Your task to perform on an android device: set default search engine in the chrome app Image 0: 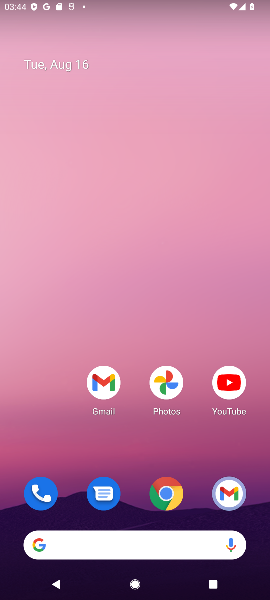
Step 0: press home button
Your task to perform on an android device: set default search engine in the chrome app Image 1: 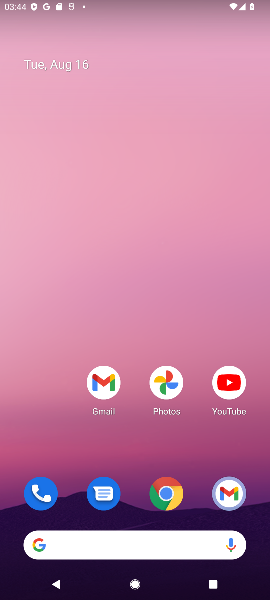
Step 1: drag from (67, 451) to (59, 140)
Your task to perform on an android device: set default search engine in the chrome app Image 2: 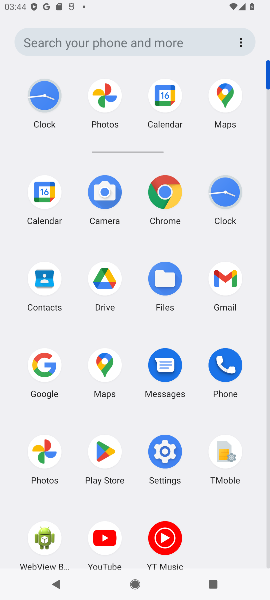
Step 2: click (166, 197)
Your task to perform on an android device: set default search engine in the chrome app Image 3: 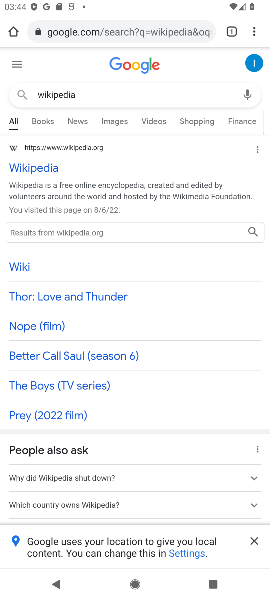
Step 3: click (255, 32)
Your task to perform on an android device: set default search engine in the chrome app Image 4: 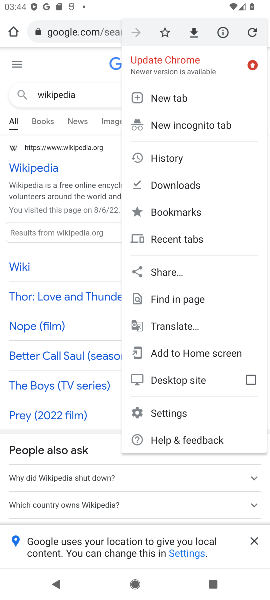
Step 4: click (179, 414)
Your task to perform on an android device: set default search engine in the chrome app Image 5: 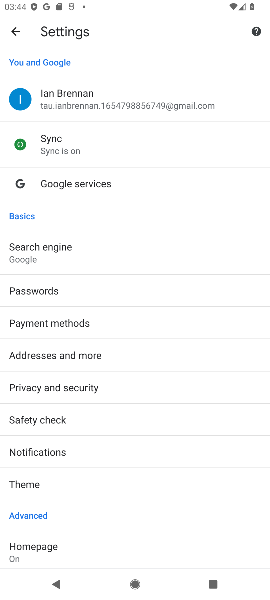
Step 5: drag from (170, 417) to (176, 245)
Your task to perform on an android device: set default search engine in the chrome app Image 6: 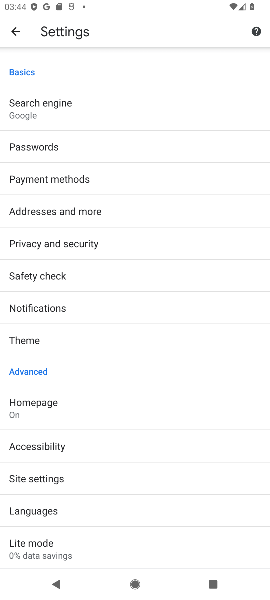
Step 6: drag from (185, 459) to (187, 281)
Your task to perform on an android device: set default search engine in the chrome app Image 7: 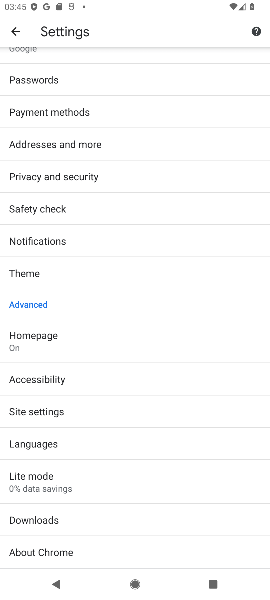
Step 7: drag from (192, 499) to (197, 274)
Your task to perform on an android device: set default search engine in the chrome app Image 8: 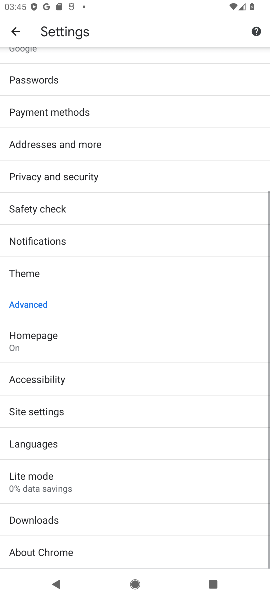
Step 8: drag from (201, 181) to (201, 396)
Your task to perform on an android device: set default search engine in the chrome app Image 9: 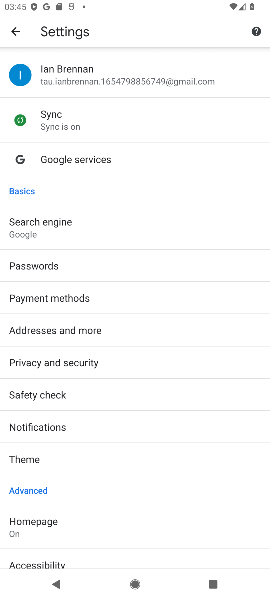
Step 9: drag from (204, 160) to (204, 386)
Your task to perform on an android device: set default search engine in the chrome app Image 10: 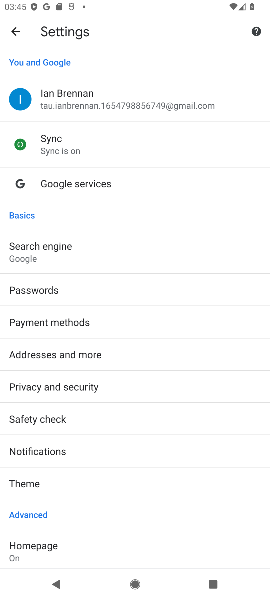
Step 10: click (67, 254)
Your task to perform on an android device: set default search engine in the chrome app Image 11: 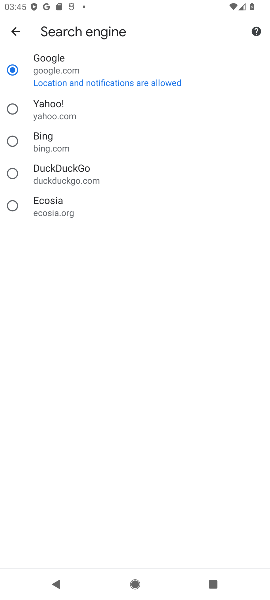
Step 11: click (51, 142)
Your task to perform on an android device: set default search engine in the chrome app Image 12: 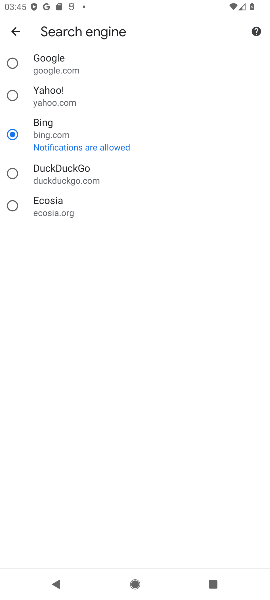
Step 12: task complete